Your task to perform on an android device: change alarm snooze length Image 0: 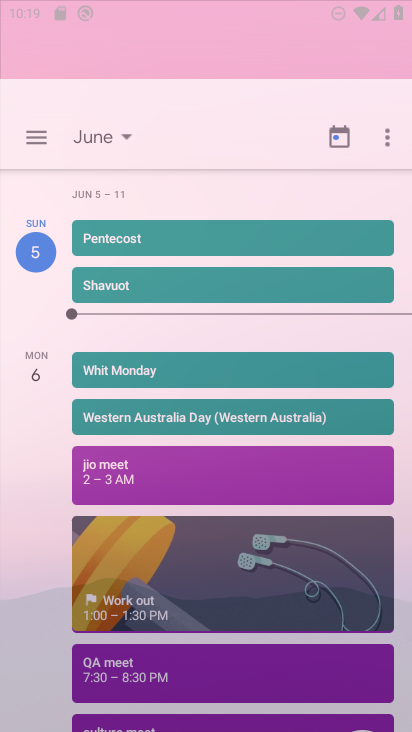
Step 0: press back button
Your task to perform on an android device: change alarm snooze length Image 1: 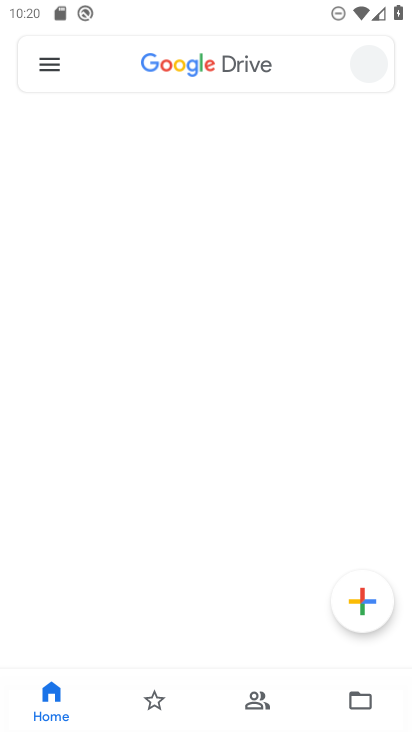
Step 1: press back button
Your task to perform on an android device: change alarm snooze length Image 2: 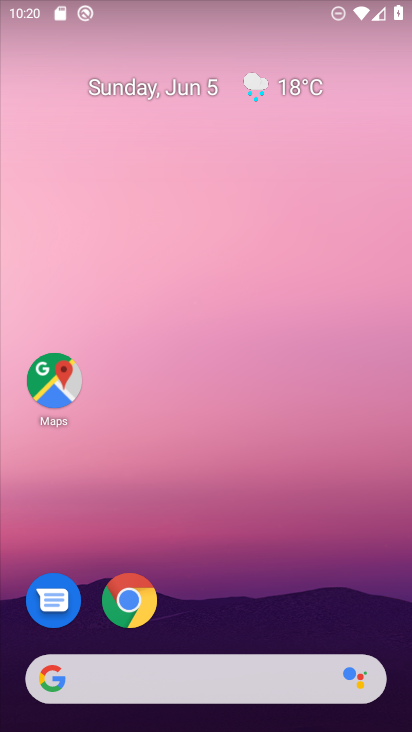
Step 2: press home button
Your task to perform on an android device: change alarm snooze length Image 3: 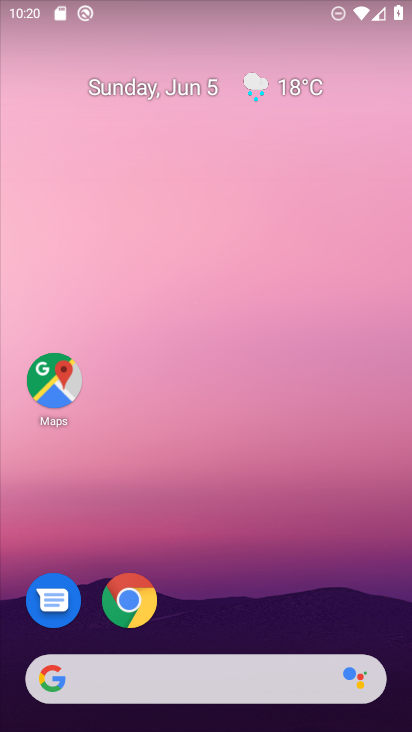
Step 3: drag from (200, 651) to (310, 6)
Your task to perform on an android device: change alarm snooze length Image 4: 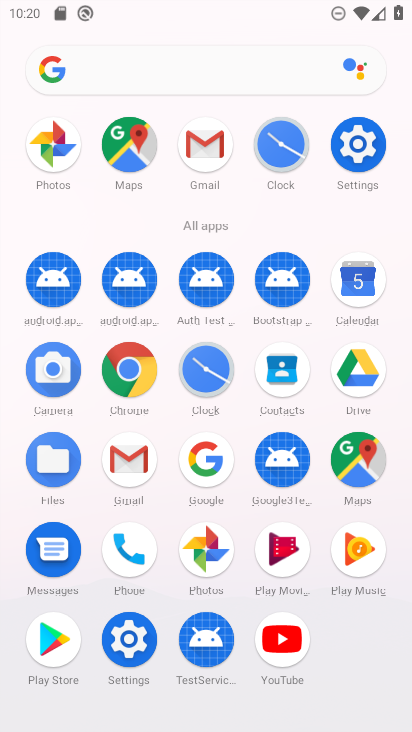
Step 4: click (283, 149)
Your task to perform on an android device: change alarm snooze length Image 5: 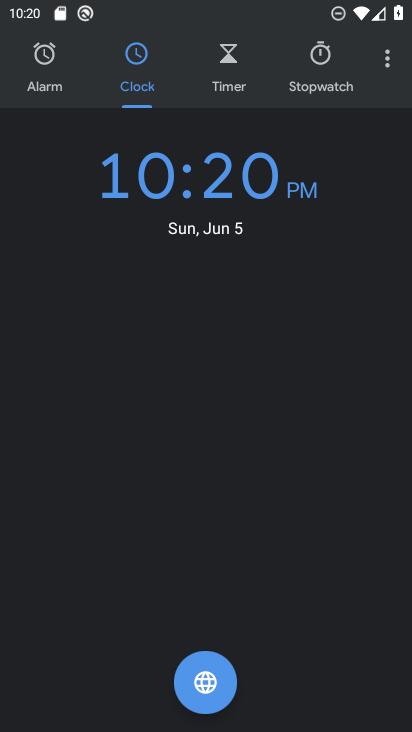
Step 5: click (370, 67)
Your task to perform on an android device: change alarm snooze length Image 6: 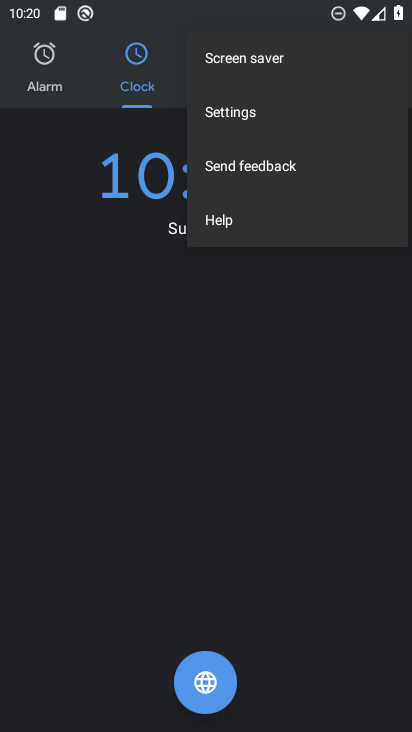
Step 6: click (282, 105)
Your task to perform on an android device: change alarm snooze length Image 7: 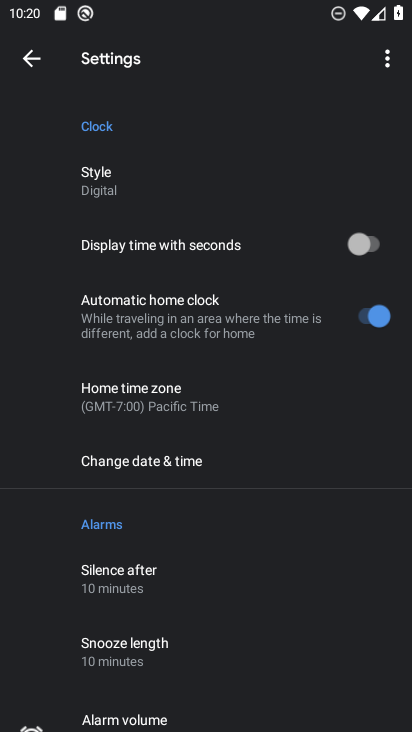
Step 7: click (153, 659)
Your task to perform on an android device: change alarm snooze length Image 8: 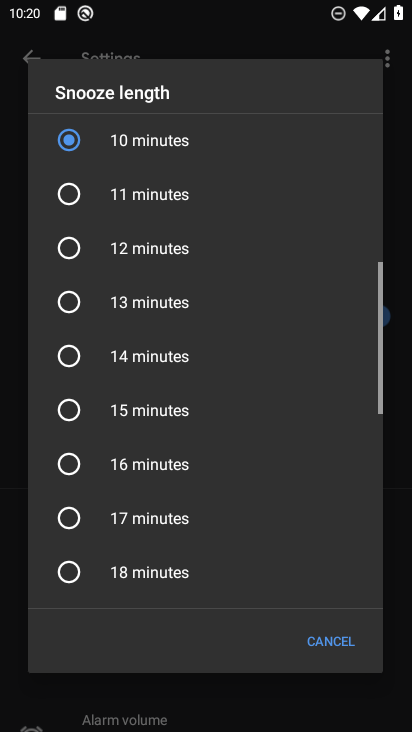
Step 8: click (74, 184)
Your task to perform on an android device: change alarm snooze length Image 9: 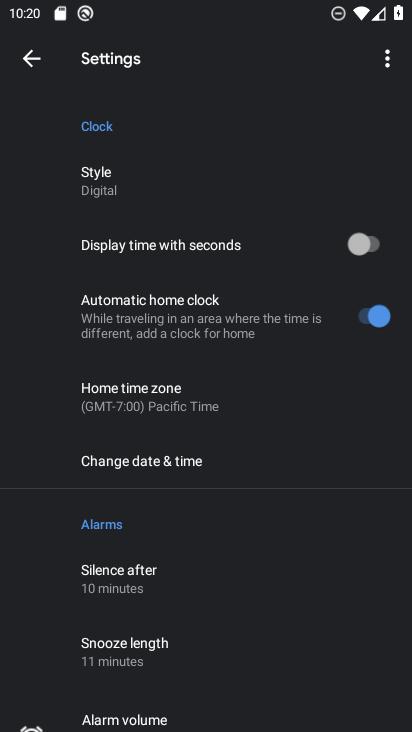
Step 9: task complete